Your task to perform on an android device: turn on wifi Image 0: 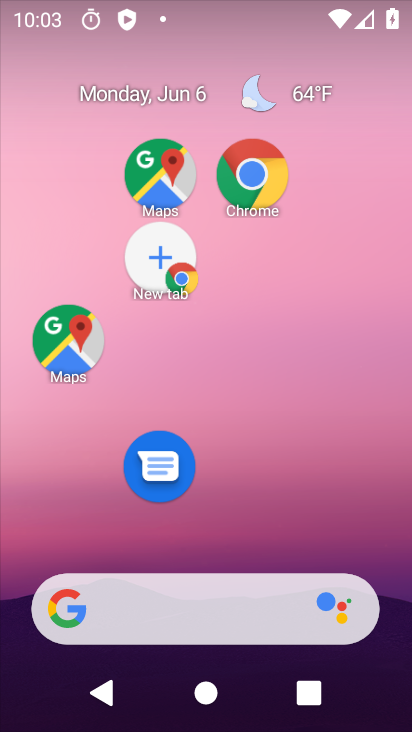
Step 0: drag from (250, 684) to (250, 97)
Your task to perform on an android device: turn on wifi Image 1: 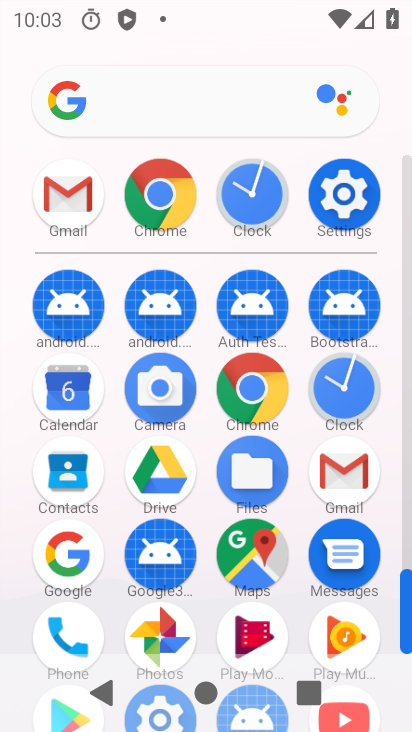
Step 1: click (349, 201)
Your task to perform on an android device: turn on wifi Image 2: 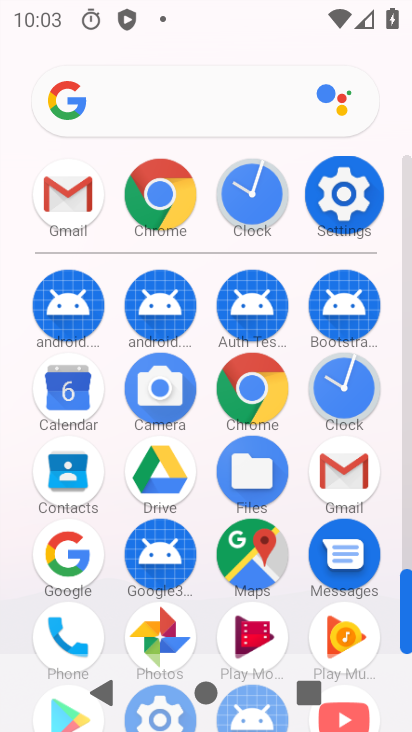
Step 2: click (348, 201)
Your task to perform on an android device: turn on wifi Image 3: 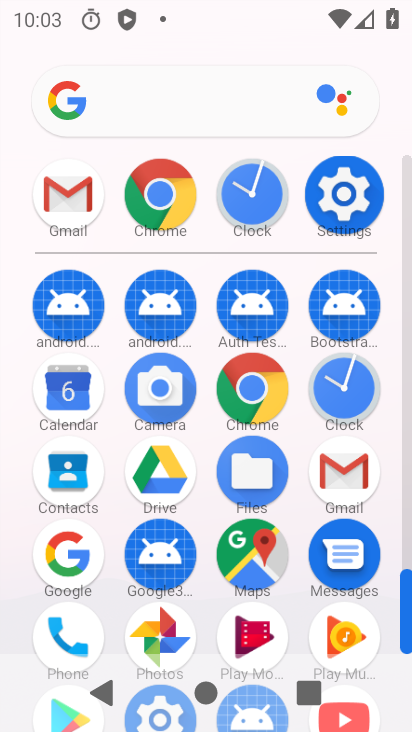
Step 3: click (348, 201)
Your task to perform on an android device: turn on wifi Image 4: 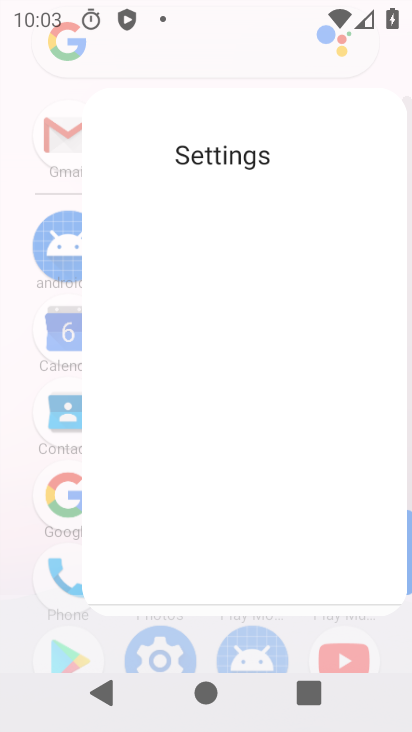
Step 4: click (348, 201)
Your task to perform on an android device: turn on wifi Image 5: 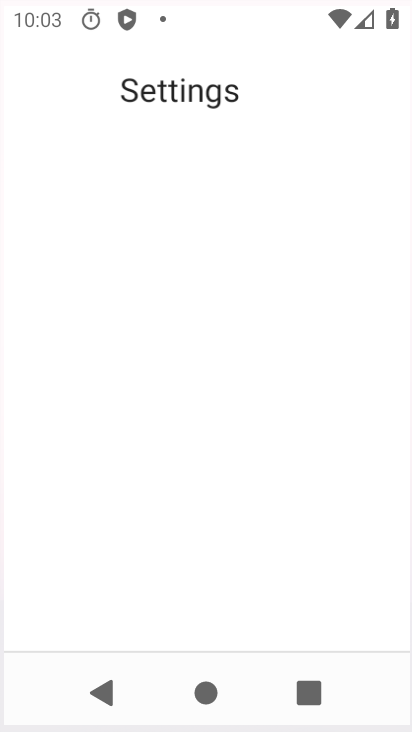
Step 5: click (335, 206)
Your task to perform on an android device: turn on wifi Image 6: 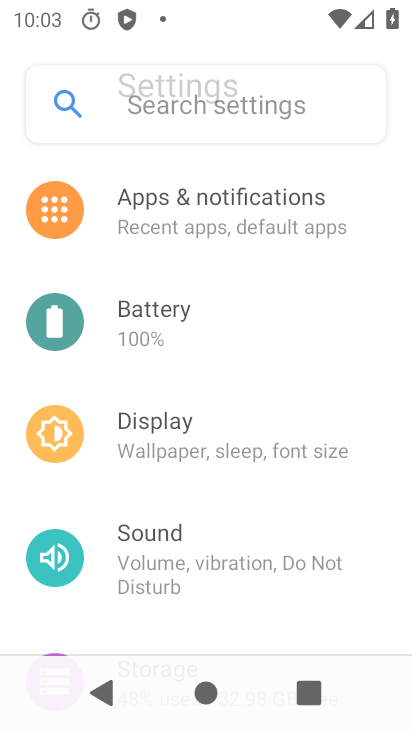
Step 6: click (335, 206)
Your task to perform on an android device: turn on wifi Image 7: 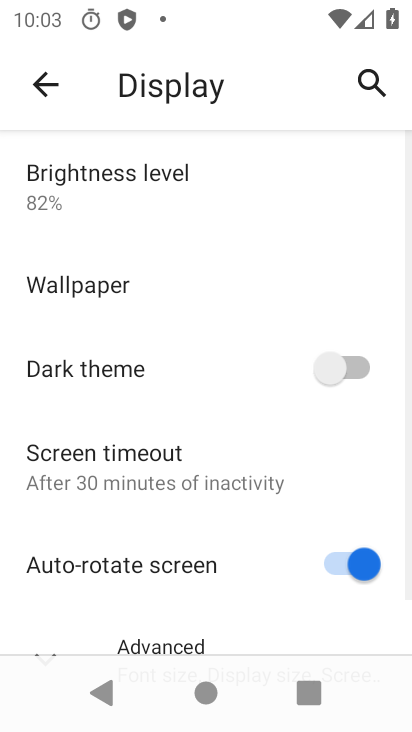
Step 7: click (42, 81)
Your task to perform on an android device: turn on wifi Image 8: 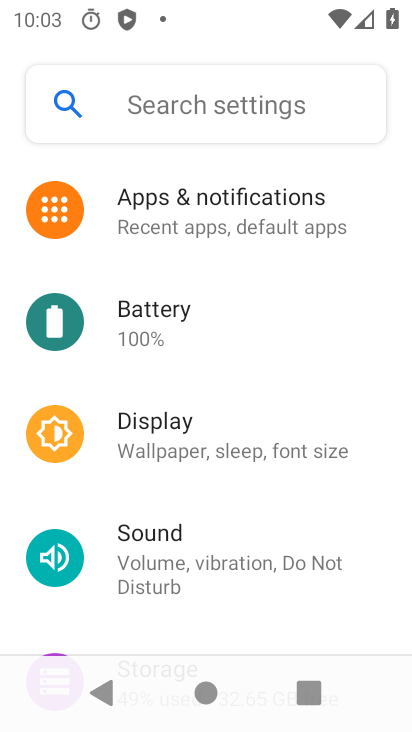
Step 8: drag from (189, 228) to (203, 650)
Your task to perform on an android device: turn on wifi Image 9: 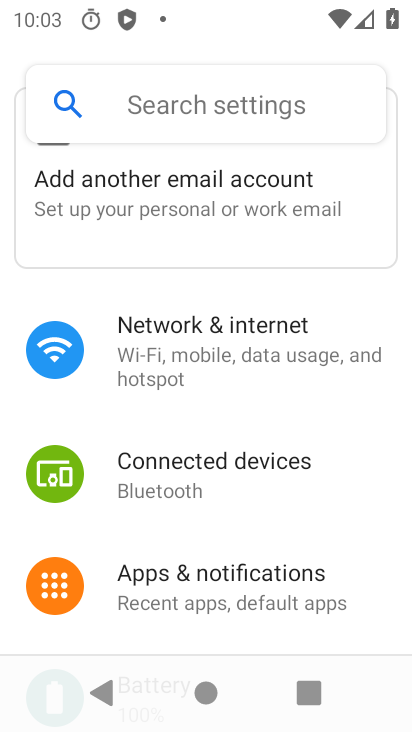
Step 9: drag from (135, 224) to (194, 573)
Your task to perform on an android device: turn on wifi Image 10: 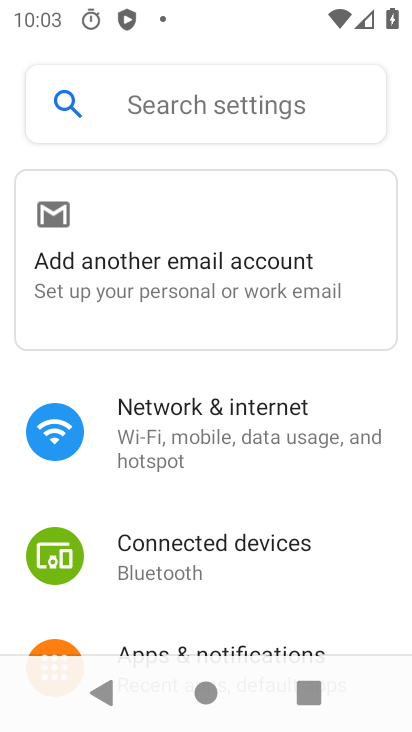
Step 10: click (179, 356)
Your task to perform on an android device: turn on wifi Image 11: 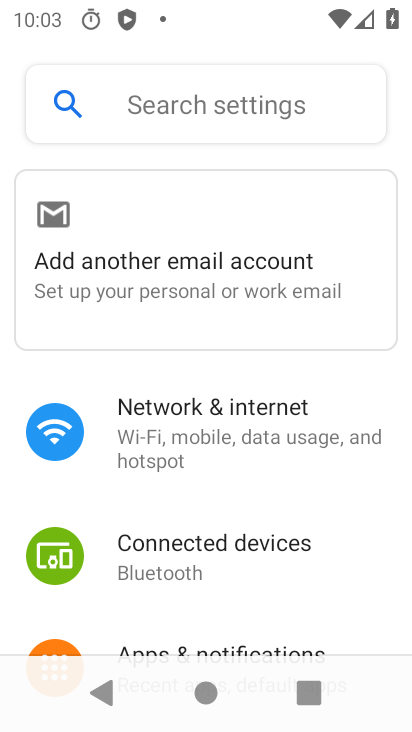
Step 11: click (179, 355)
Your task to perform on an android device: turn on wifi Image 12: 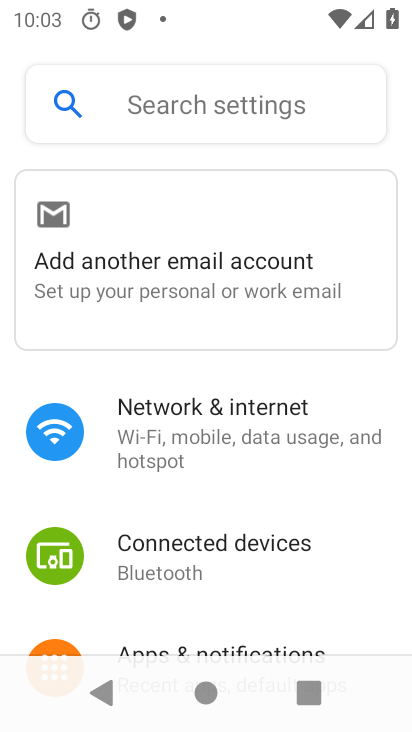
Step 12: drag from (177, 354) to (176, 416)
Your task to perform on an android device: turn on wifi Image 13: 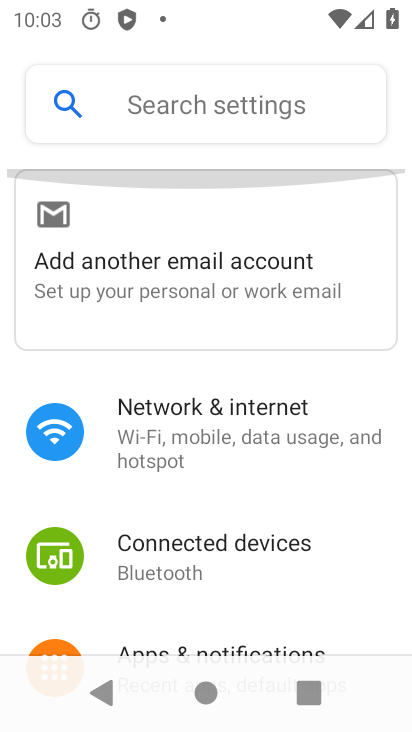
Step 13: click (176, 417)
Your task to perform on an android device: turn on wifi Image 14: 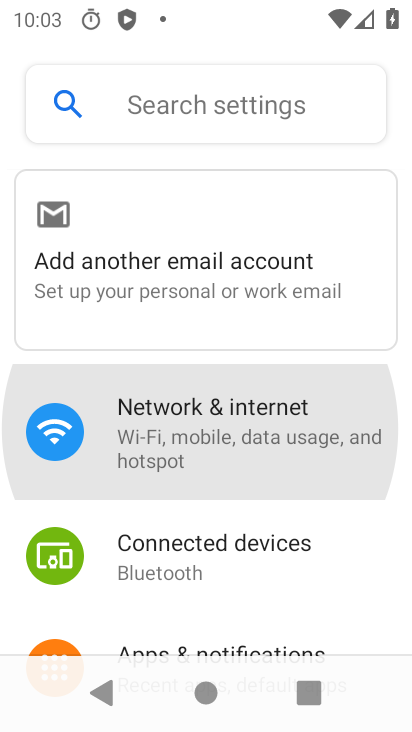
Step 14: click (179, 433)
Your task to perform on an android device: turn on wifi Image 15: 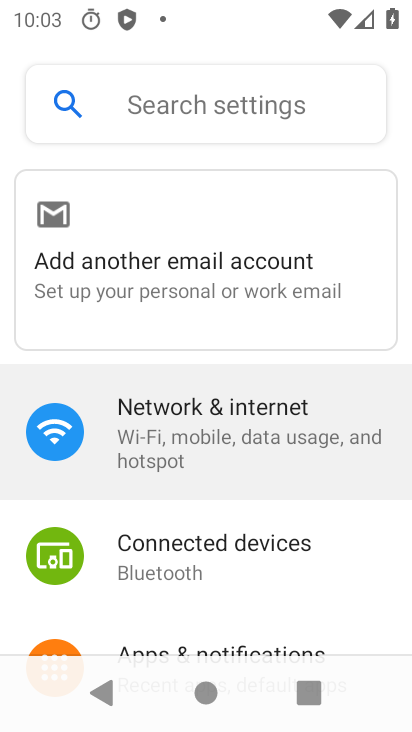
Step 15: click (179, 433)
Your task to perform on an android device: turn on wifi Image 16: 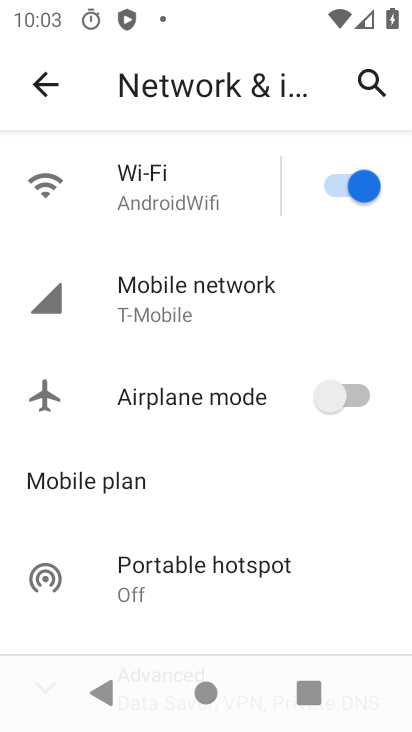
Step 16: task complete